Your task to perform on an android device: check storage Image 0: 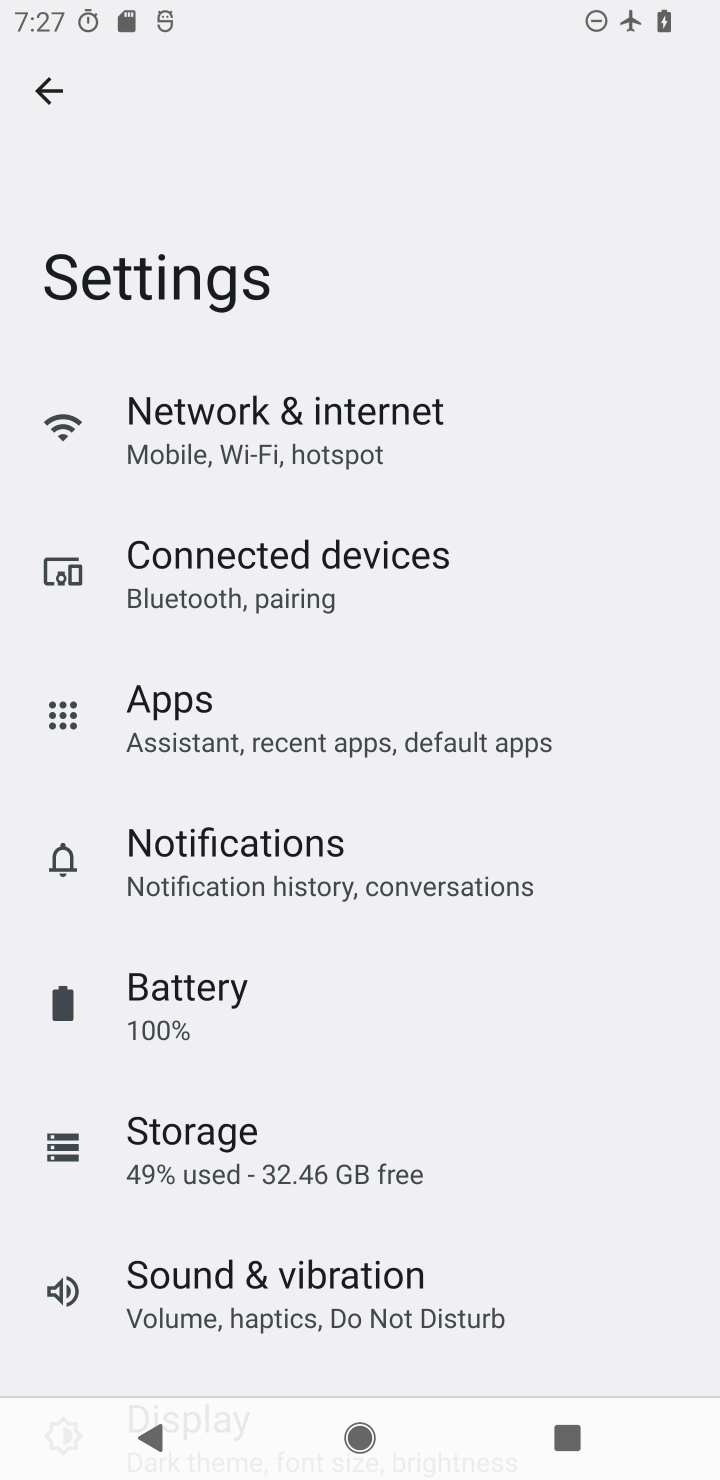
Step 0: drag from (347, 1137) to (398, 453)
Your task to perform on an android device: check storage Image 1: 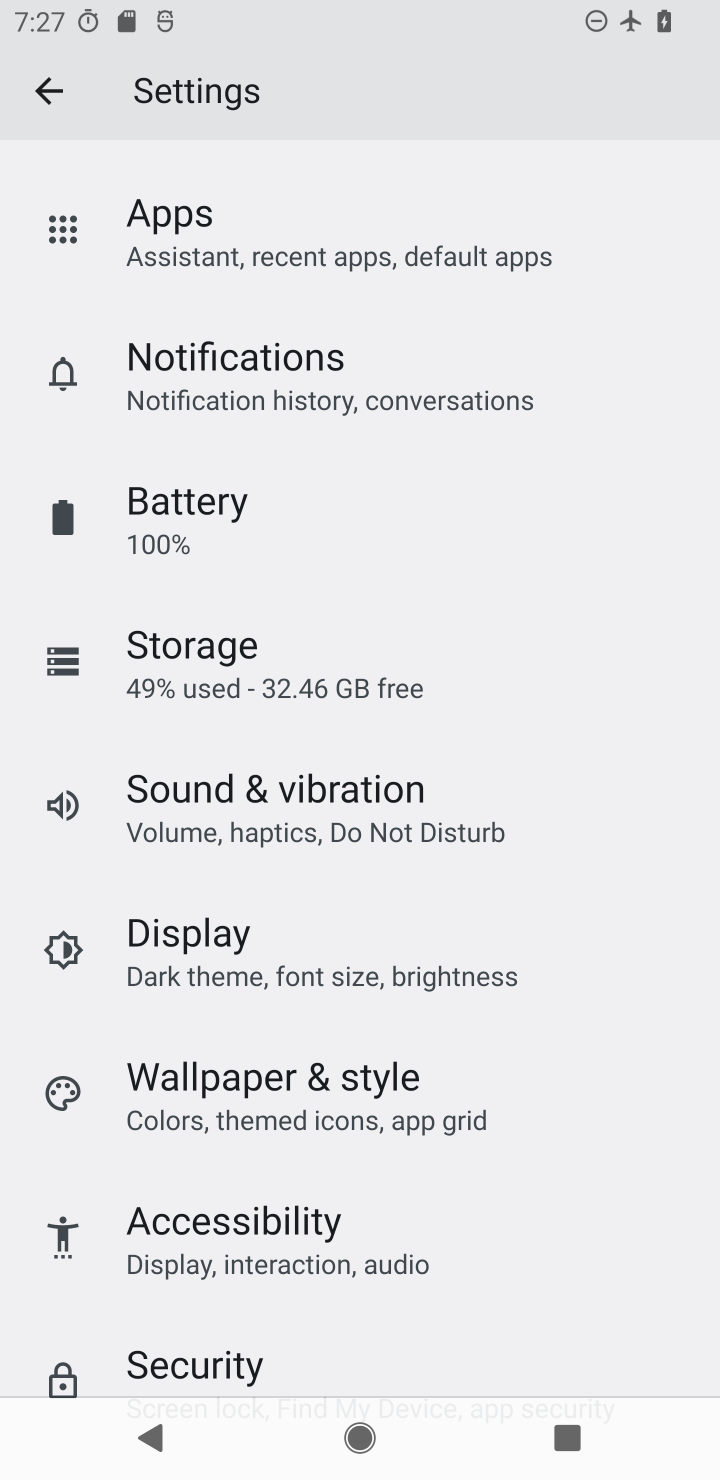
Step 1: click (217, 674)
Your task to perform on an android device: check storage Image 2: 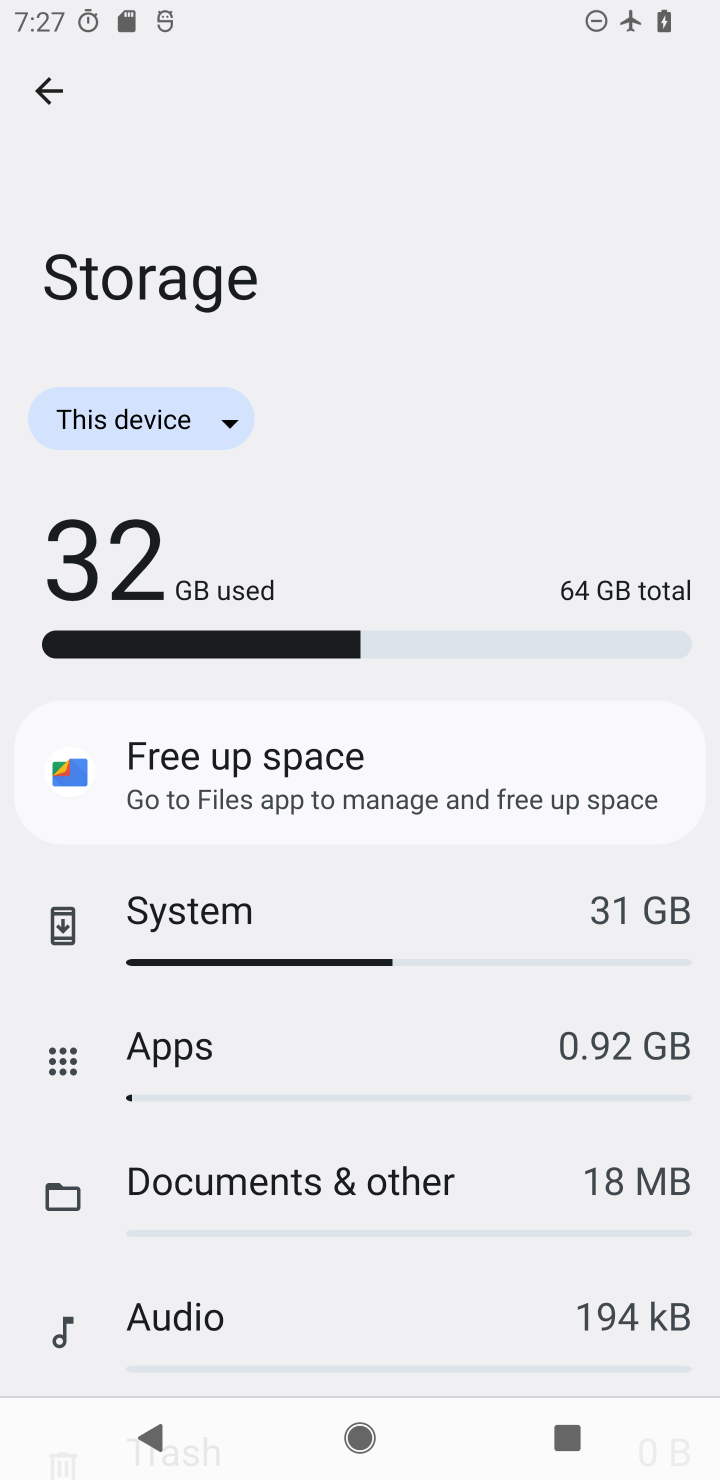
Step 2: task complete